Your task to perform on an android device: What is the news today? Image 0: 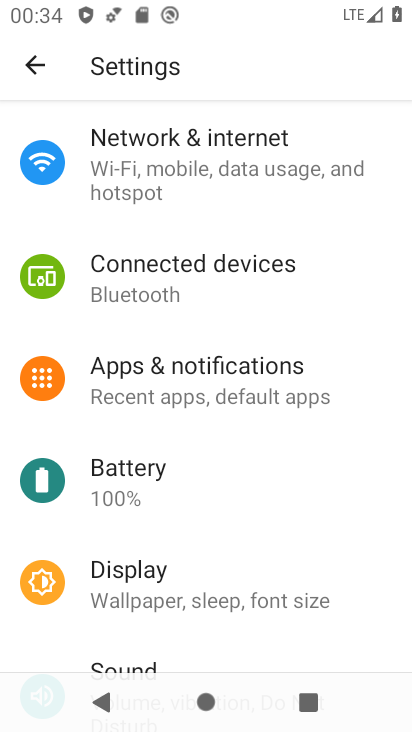
Step 0: press home button
Your task to perform on an android device: What is the news today? Image 1: 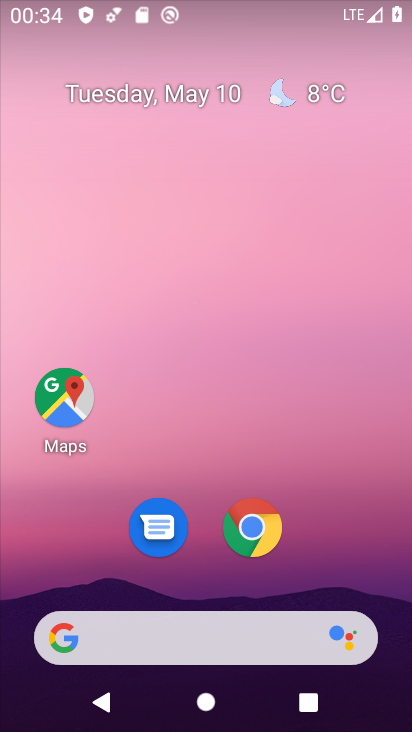
Step 1: click (234, 518)
Your task to perform on an android device: What is the news today? Image 2: 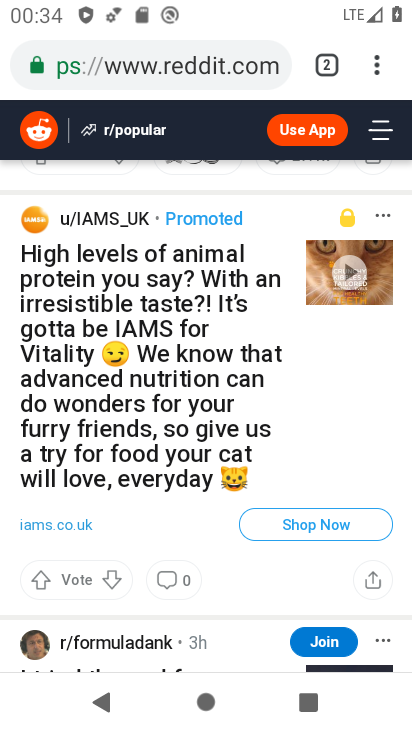
Step 2: click (329, 65)
Your task to perform on an android device: What is the news today? Image 3: 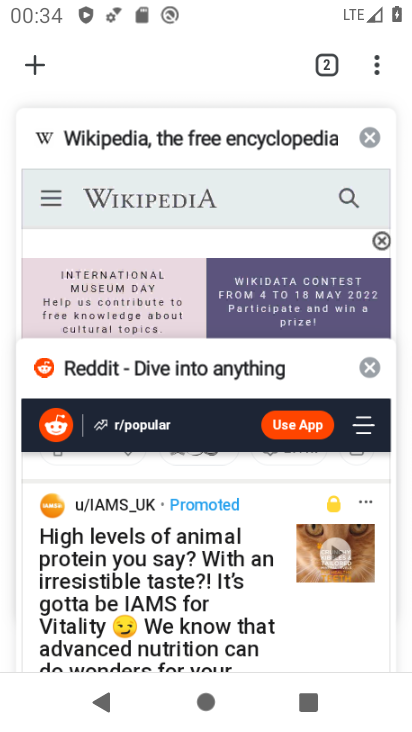
Step 3: click (33, 58)
Your task to perform on an android device: What is the news today? Image 4: 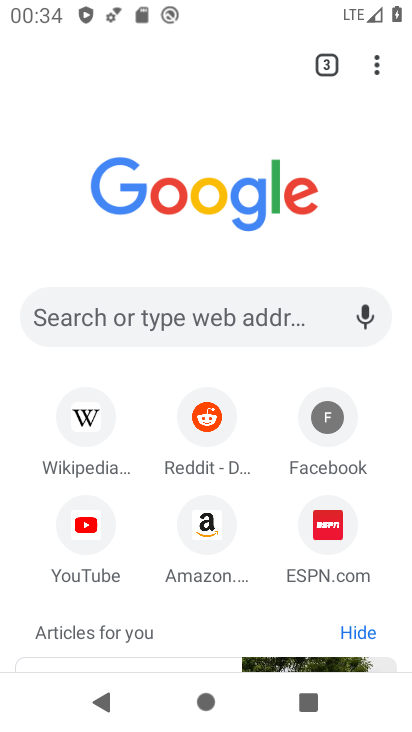
Step 4: click (123, 320)
Your task to perform on an android device: What is the news today? Image 5: 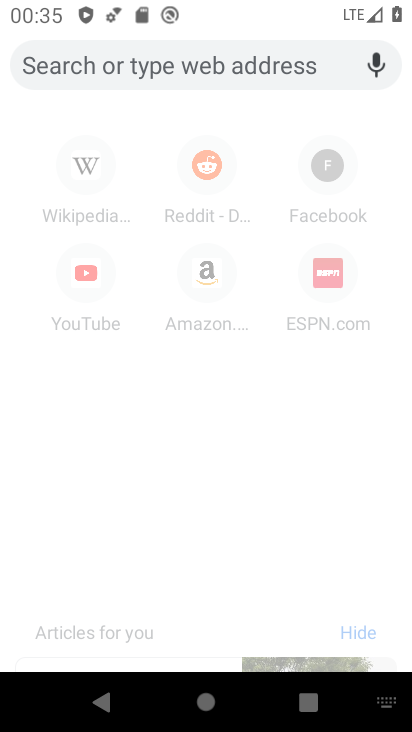
Step 5: type "what is the news today?"
Your task to perform on an android device: What is the news today? Image 6: 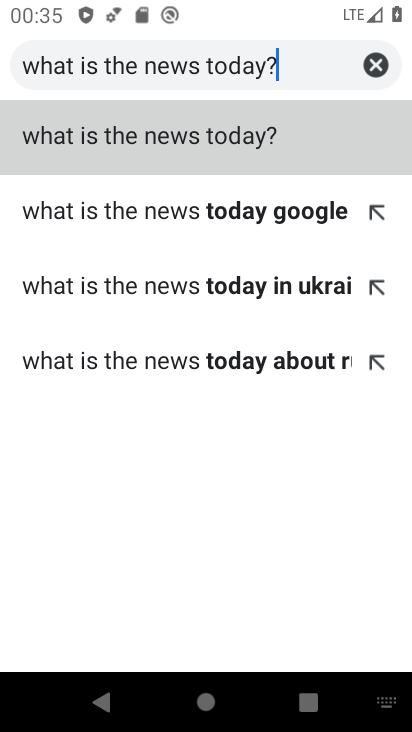
Step 6: click (217, 134)
Your task to perform on an android device: What is the news today? Image 7: 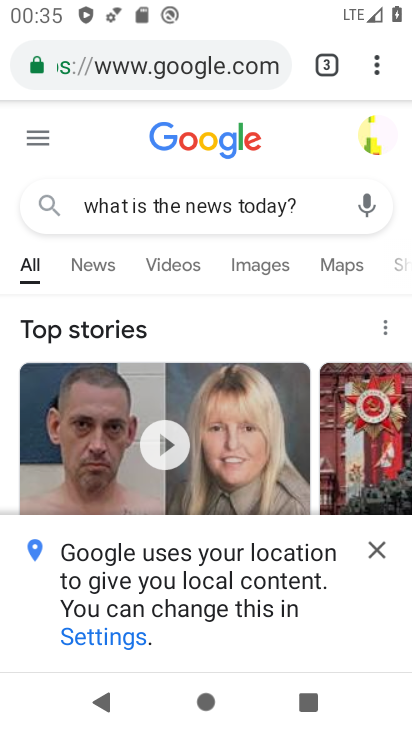
Step 7: click (382, 551)
Your task to perform on an android device: What is the news today? Image 8: 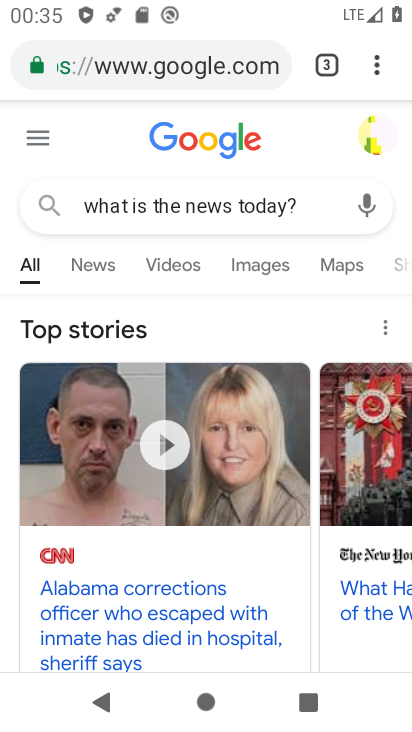
Step 8: task complete